Your task to perform on an android device: Show me popular videos on Youtube Image 0: 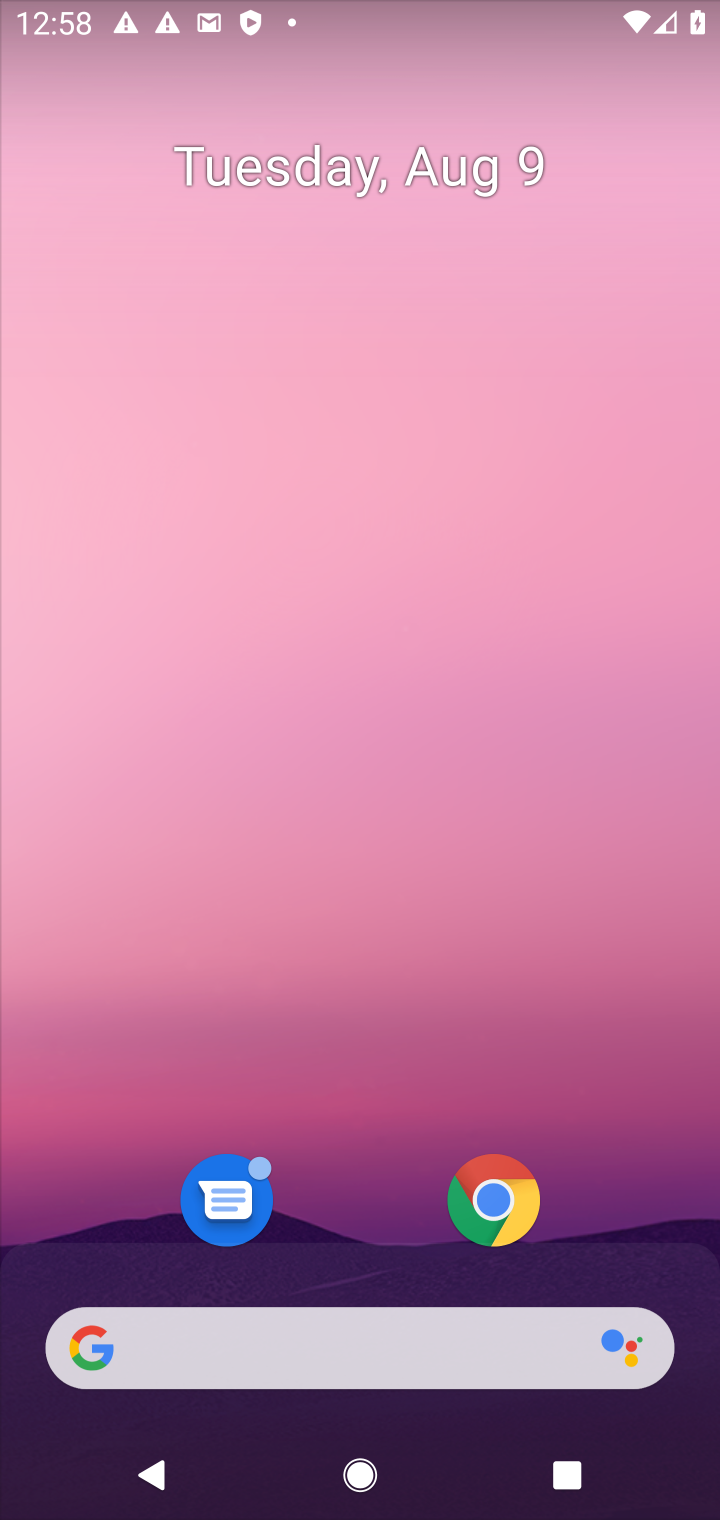
Step 0: drag from (293, 1182) to (507, 207)
Your task to perform on an android device: Show me popular videos on Youtube Image 1: 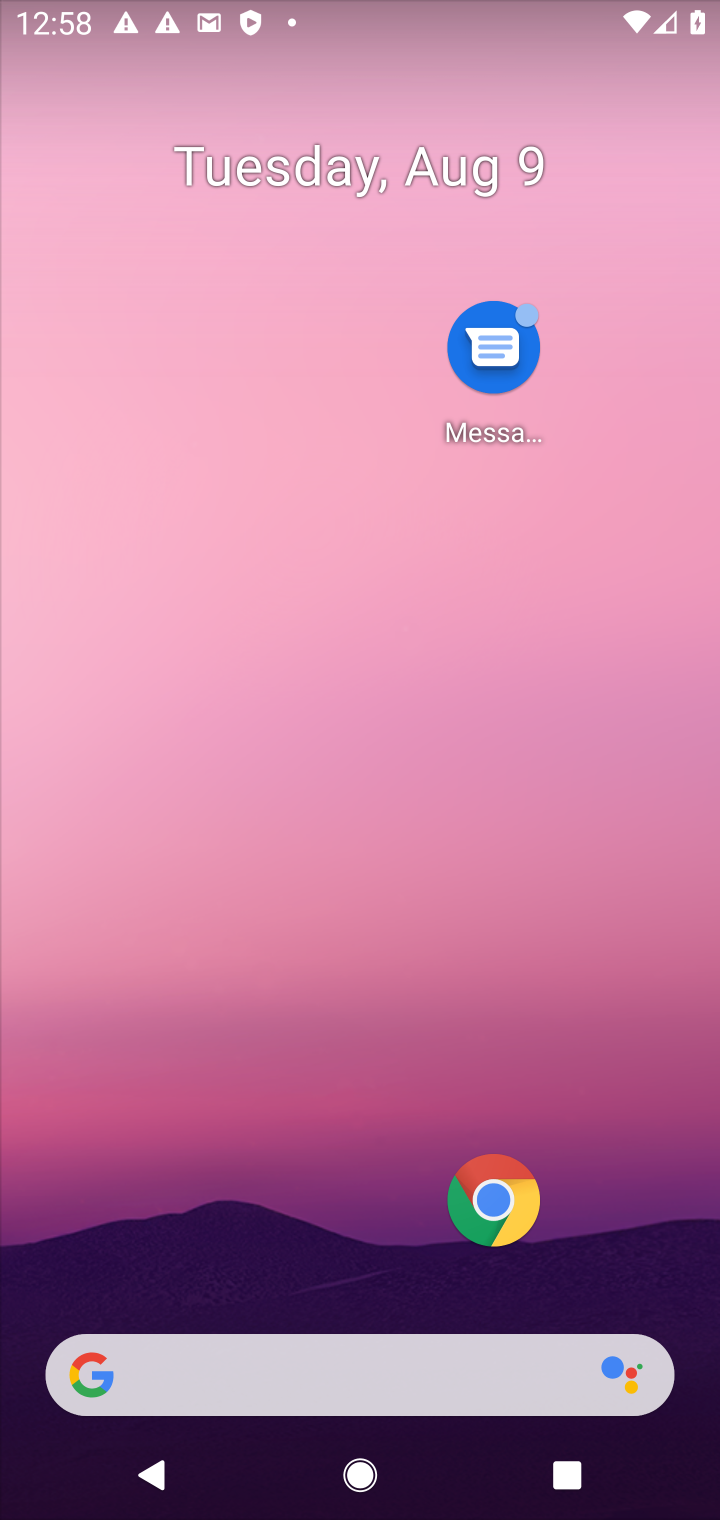
Step 1: drag from (289, 1250) to (349, 18)
Your task to perform on an android device: Show me popular videos on Youtube Image 2: 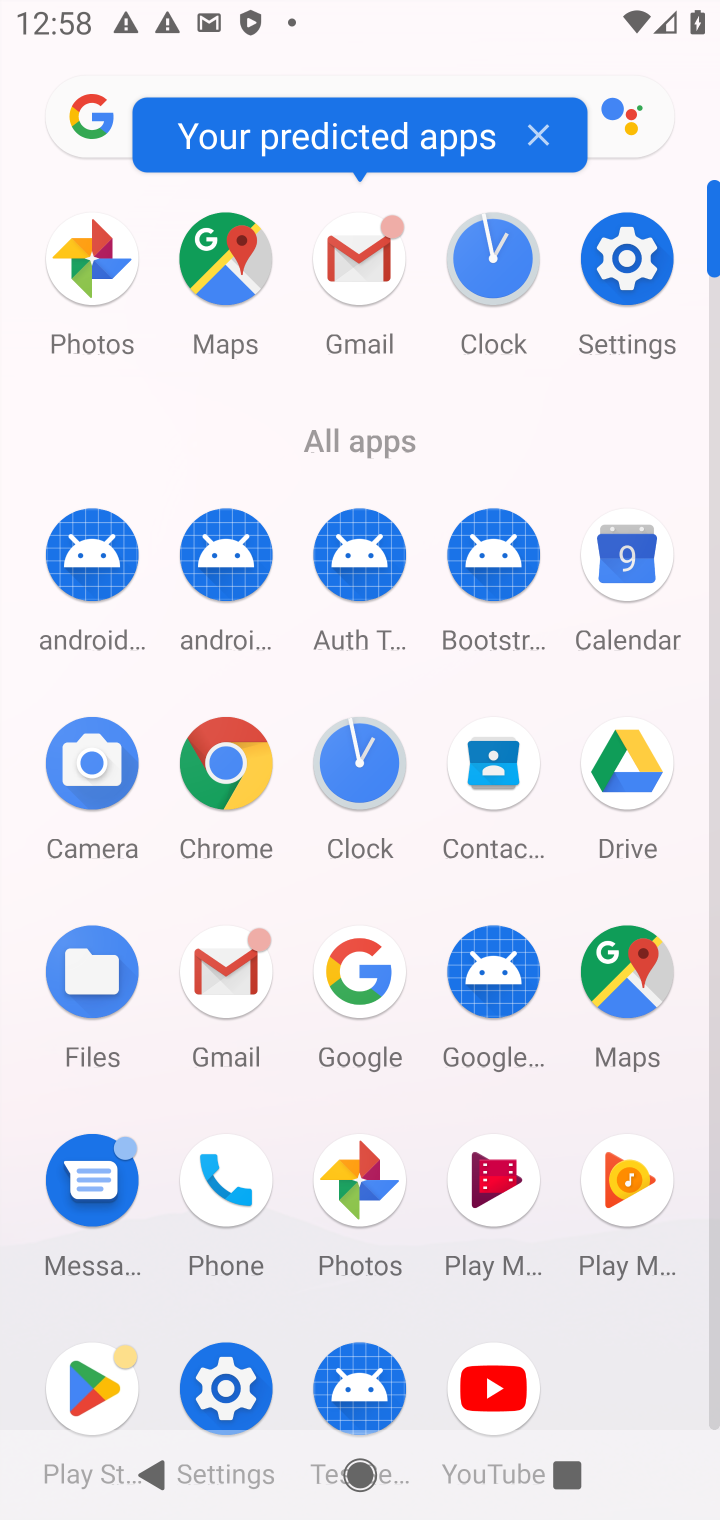
Step 2: click (485, 1384)
Your task to perform on an android device: Show me popular videos on Youtube Image 3: 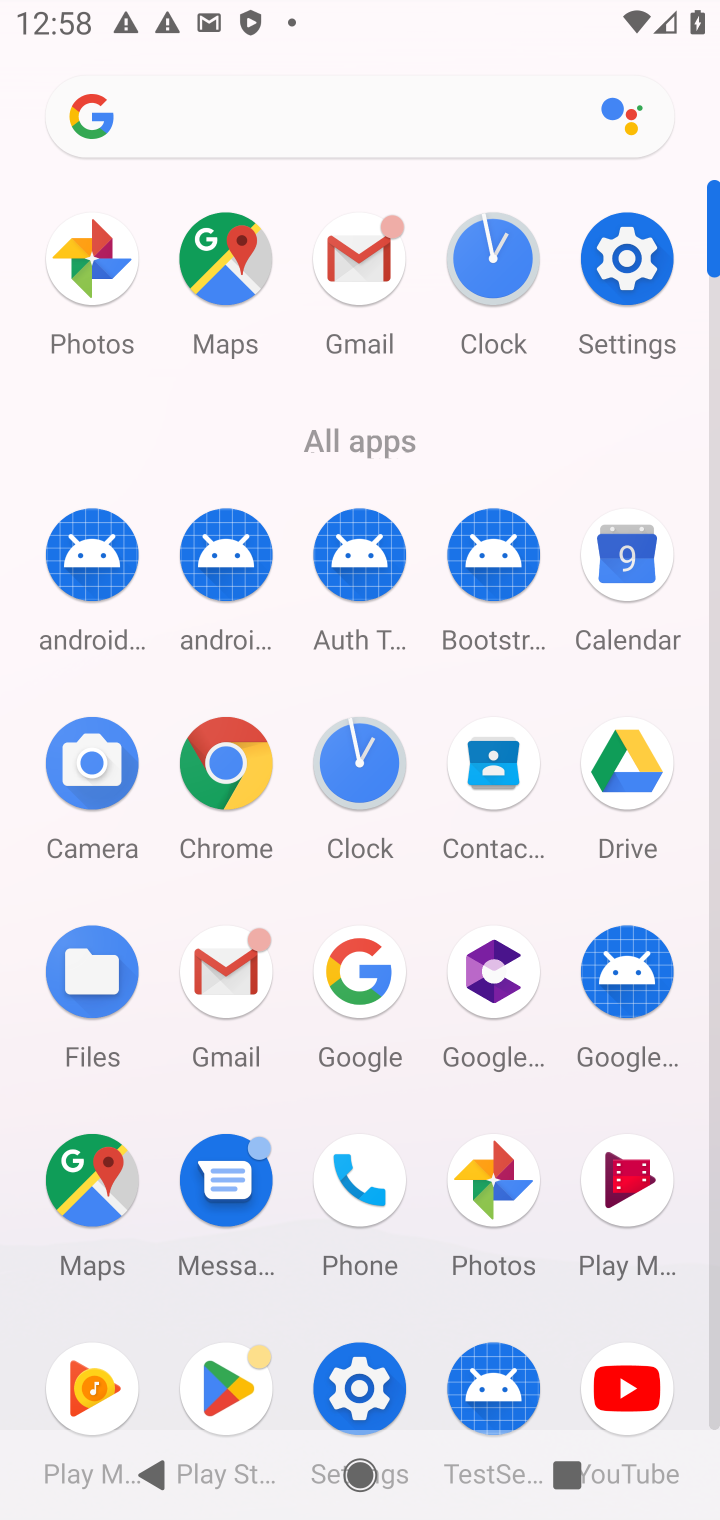
Step 3: click (630, 1383)
Your task to perform on an android device: Show me popular videos on Youtube Image 4: 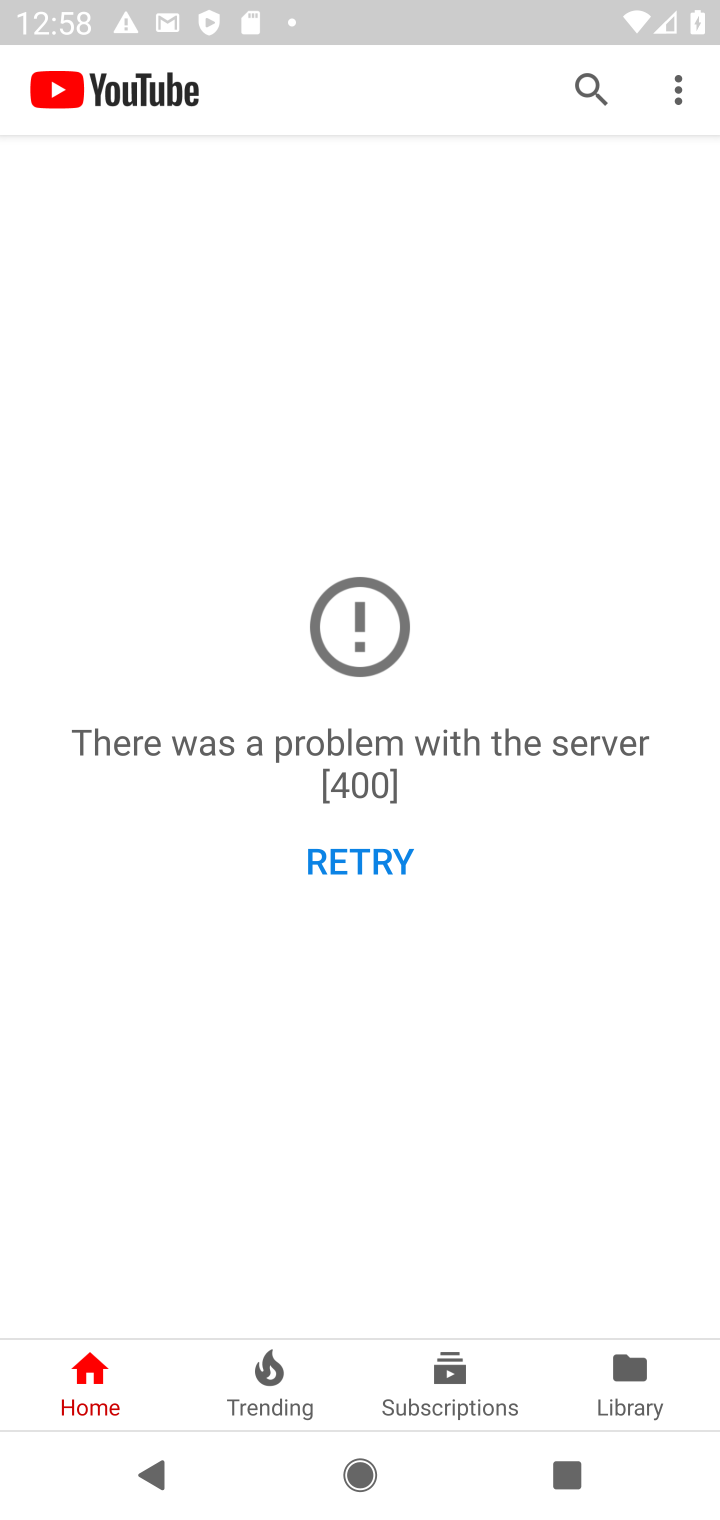
Step 4: click (626, 1385)
Your task to perform on an android device: Show me popular videos on Youtube Image 5: 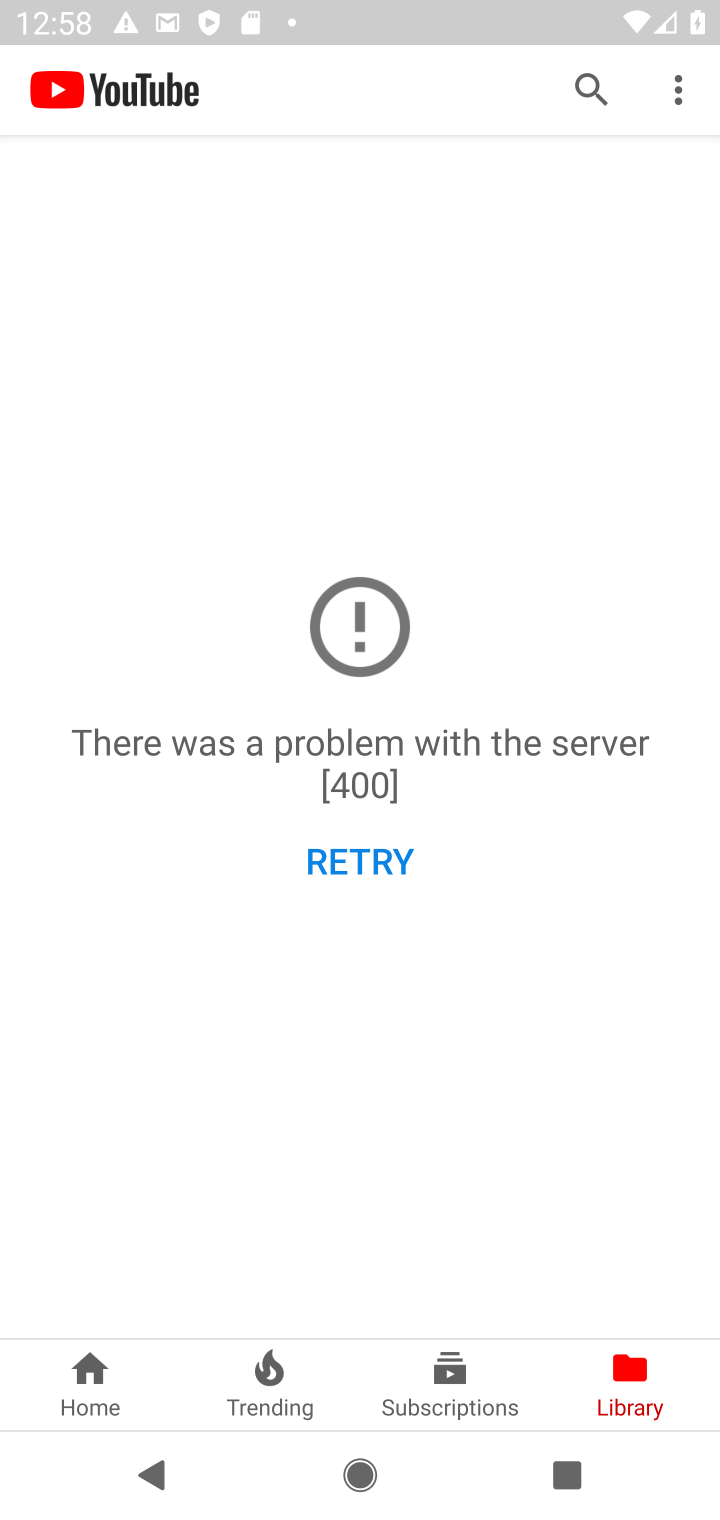
Step 5: task complete